Your task to perform on an android device: toggle airplane mode Image 0: 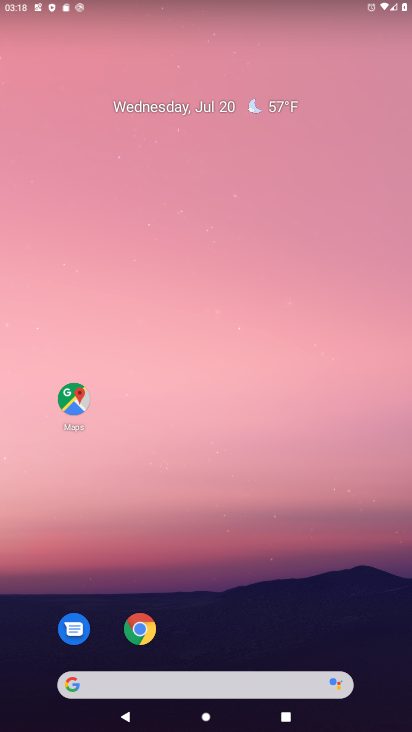
Step 0: drag from (381, 619) to (375, 107)
Your task to perform on an android device: toggle airplane mode Image 1: 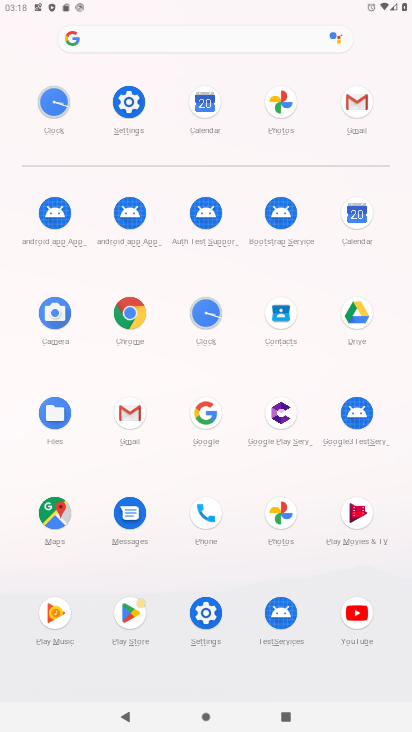
Step 1: click (204, 614)
Your task to perform on an android device: toggle airplane mode Image 2: 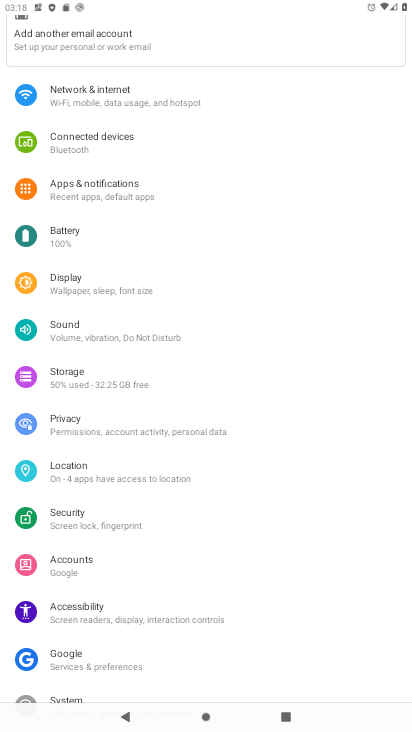
Step 2: click (76, 89)
Your task to perform on an android device: toggle airplane mode Image 3: 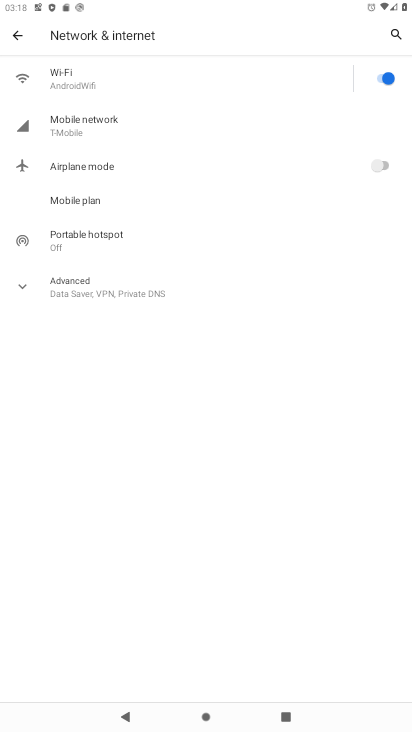
Step 3: click (388, 163)
Your task to perform on an android device: toggle airplane mode Image 4: 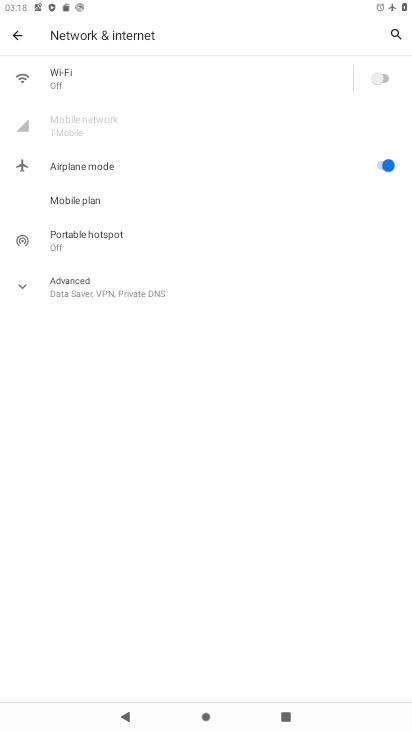
Step 4: task complete